Your task to perform on an android device: Search for sushi restaurants on Maps Image 0: 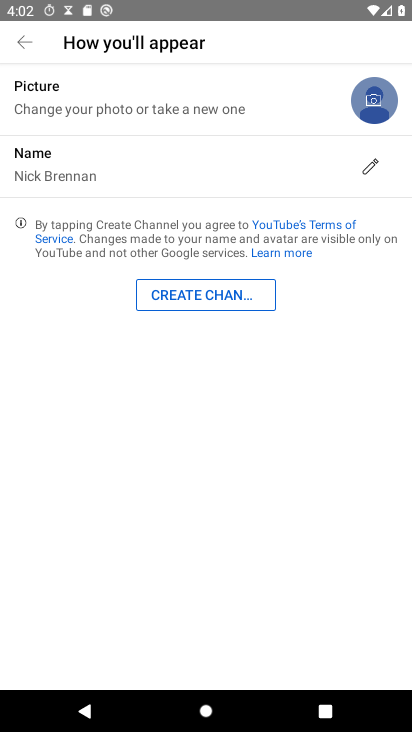
Step 0: press home button
Your task to perform on an android device: Search for sushi restaurants on Maps Image 1: 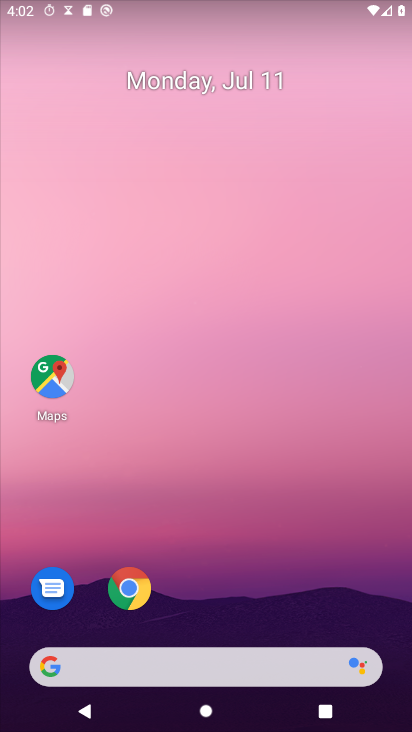
Step 1: click (55, 372)
Your task to perform on an android device: Search for sushi restaurants on Maps Image 2: 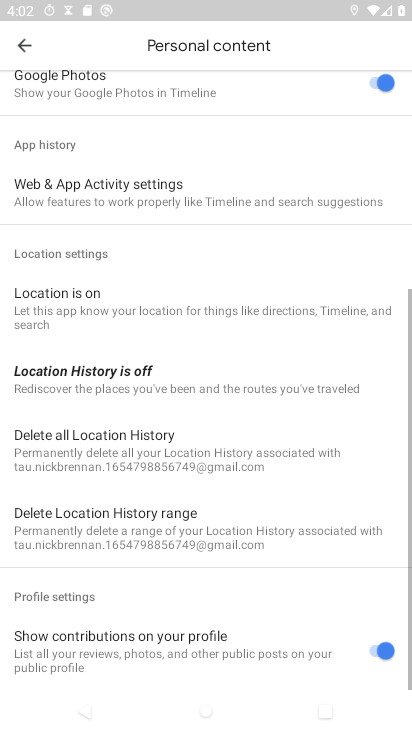
Step 2: click (31, 43)
Your task to perform on an android device: Search for sushi restaurants on Maps Image 3: 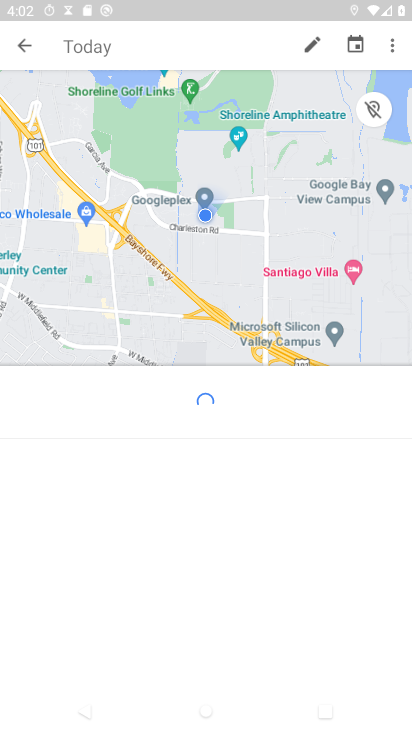
Step 3: click (14, 49)
Your task to perform on an android device: Search for sushi restaurants on Maps Image 4: 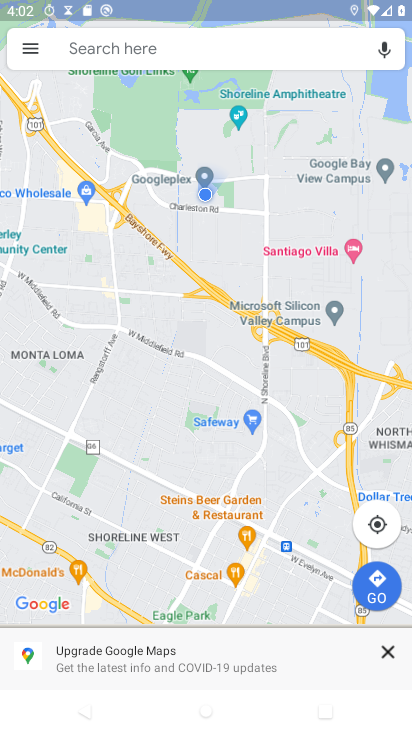
Step 4: click (158, 43)
Your task to perform on an android device: Search for sushi restaurants on Maps Image 5: 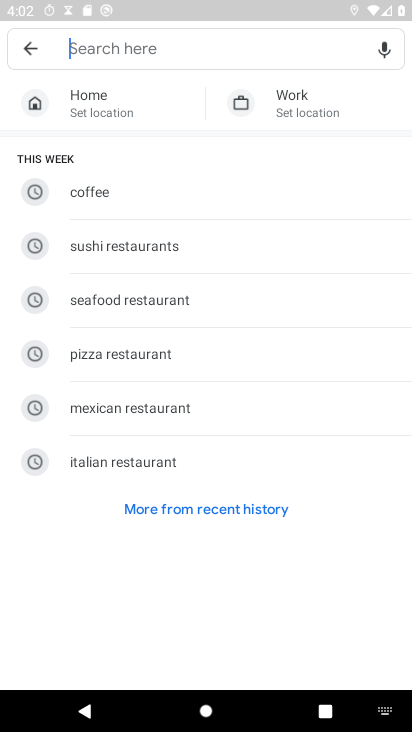
Step 5: type "sushi restaurants"
Your task to perform on an android device: Search for sushi restaurants on Maps Image 6: 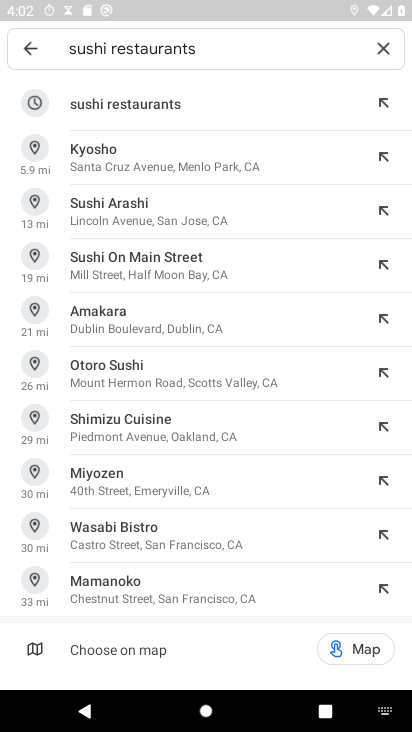
Step 6: click (245, 109)
Your task to perform on an android device: Search for sushi restaurants on Maps Image 7: 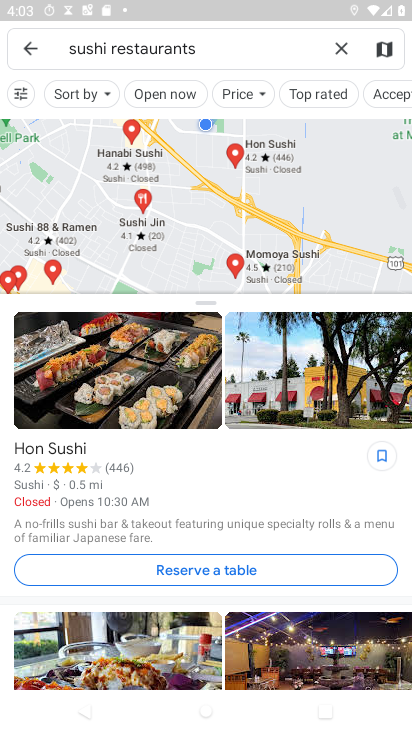
Step 7: task complete